Your task to perform on an android device: Check the news Image 0: 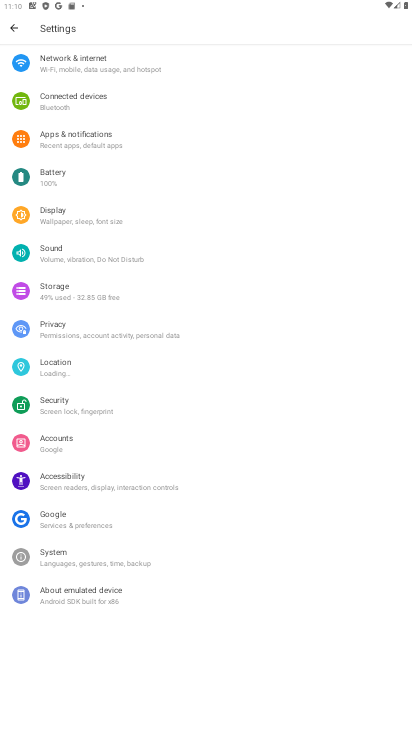
Step 0: press home button
Your task to perform on an android device: Check the news Image 1: 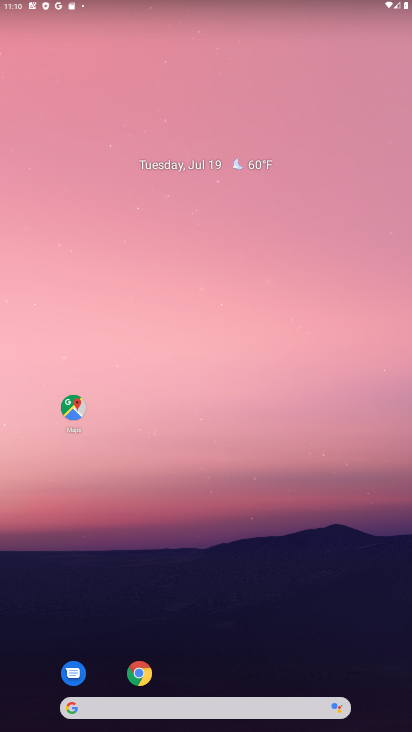
Step 1: task complete